Your task to perform on an android device: delete browsing data in the chrome app Image 0: 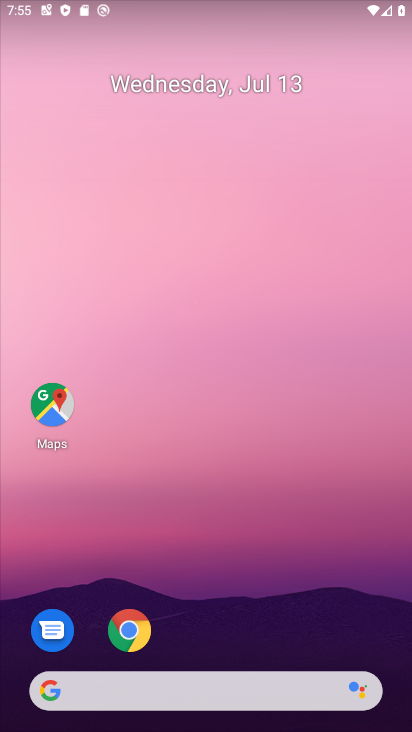
Step 0: drag from (349, 607) to (312, 77)
Your task to perform on an android device: delete browsing data in the chrome app Image 1: 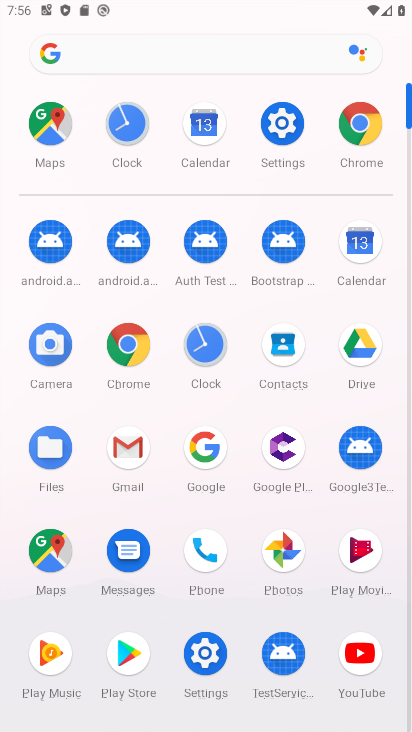
Step 1: click (132, 343)
Your task to perform on an android device: delete browsing data in the chrome app Image 2: 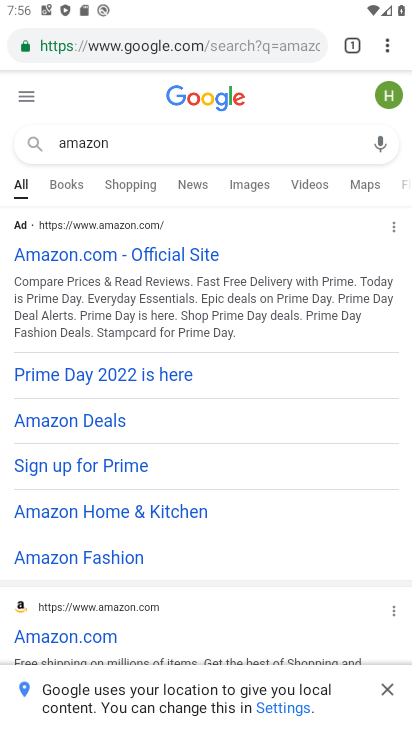
Step 2: click (387, 51)
Your task to perform on an android device: delete browsing data in the chrome app Image 3: 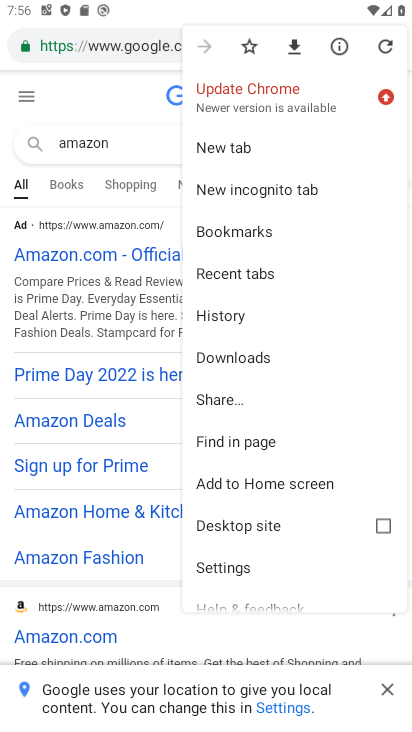
Step 3: drag from (333, 367) to (334, 270)
Your task to perform on an android device: delete browsing data in the chrome app Image 4: 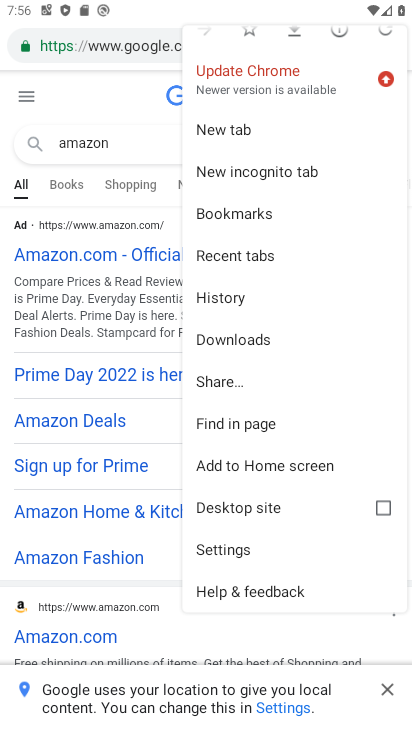
Step 4: click (278, 548)
Your task to perform on an android device: delete browsing data in the chrome app Image 5: 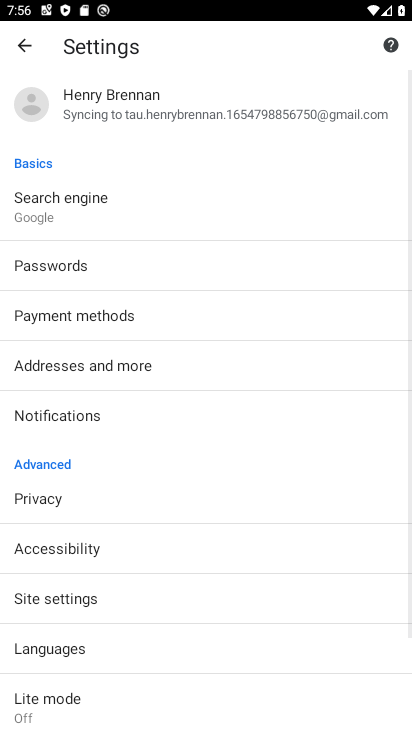
Step 5: drag from (315, 565) to (320, 474)
Your task to perform on an android device: delete browsing data in the chrome app Image 6: 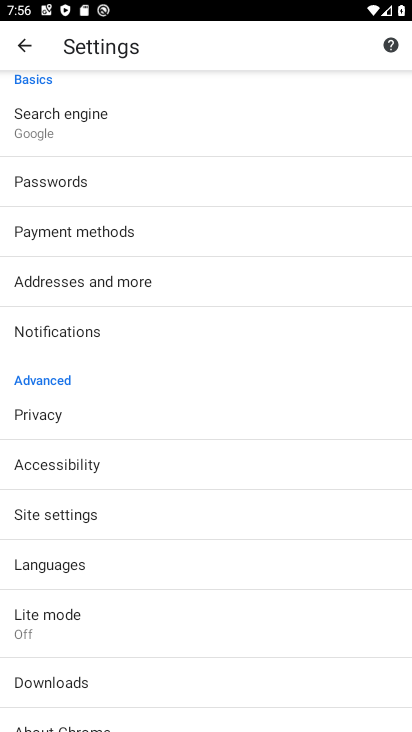
Step 6: drag from (320, 558) to (322, 430)
Your task to perform on an android device: delete browsing data in the chrome app Image 7: 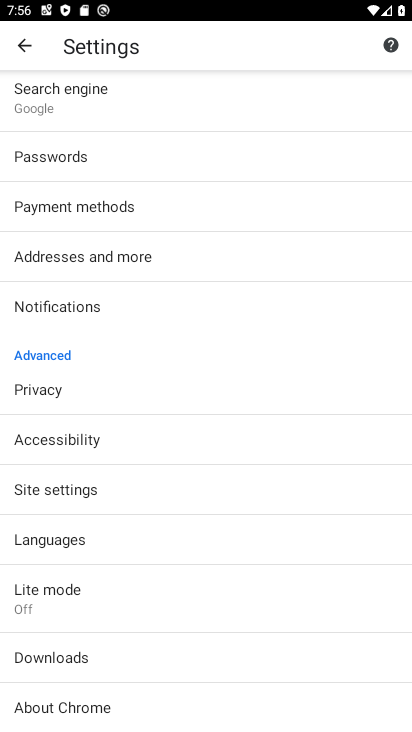
Step 7: click (243, 400)
Your task to perform on an android device: delete browsing data in the chrome app Image 8: 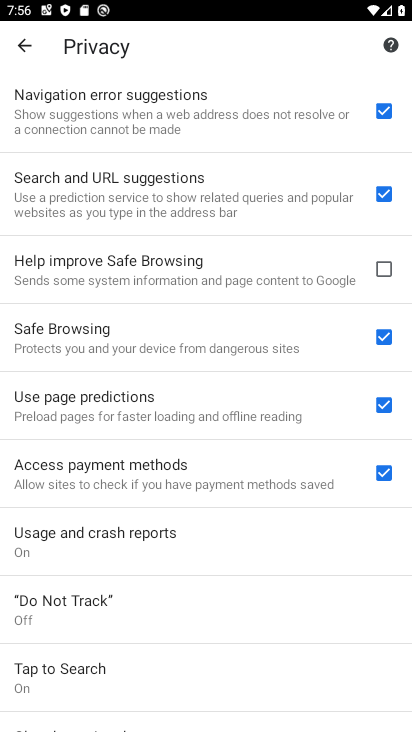
Step 8: drag from (301, 327) to (301, 427)
Your task to perform on an android device: delete browsing data in the chrome app Image 9: 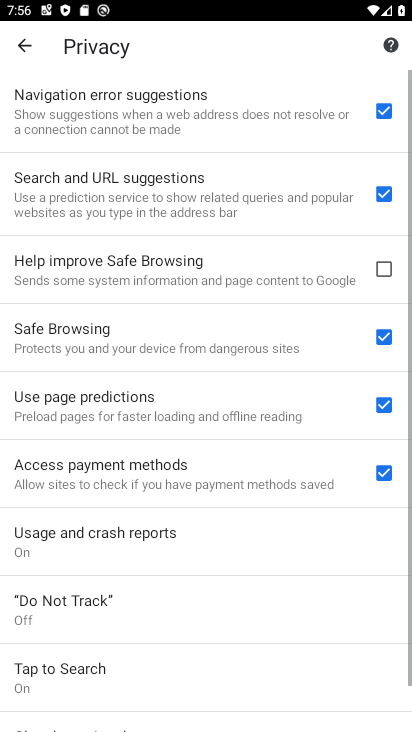
Step 9: drag from (303, 498) to (307, 419)
Your task to perform on an android device: delete browsing data in the chrome app Image 10: 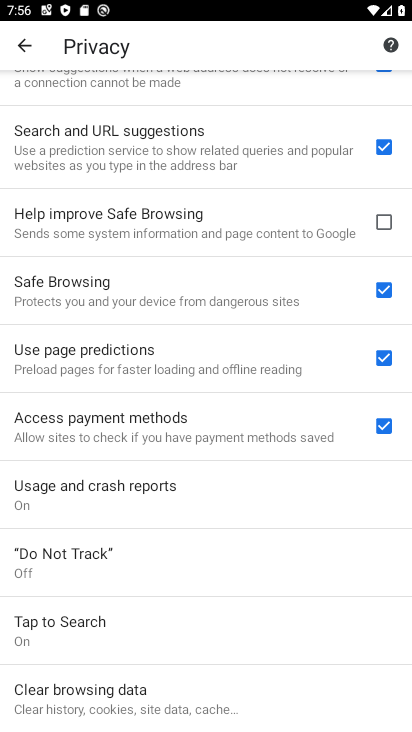
Step 10: click (256, 713)
Your task to perform on an android device: delete browsing data in the chrome app Image 11: 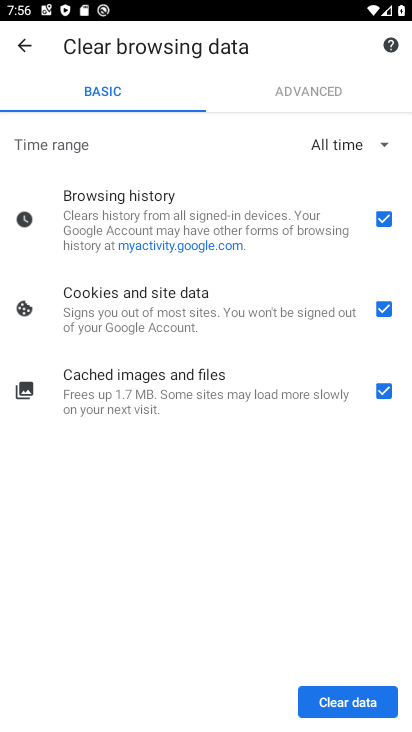
Step 11: click (347, 699)
Your task to perform on an android device: delete browsing data in the chrome app Image 12: 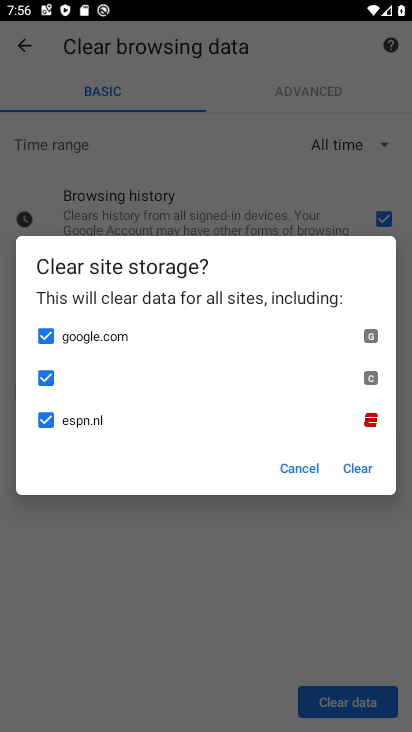
Step 12: click (358, 480)
Your task to perform on an android device: delete browsing data in the chrome app Image 13: 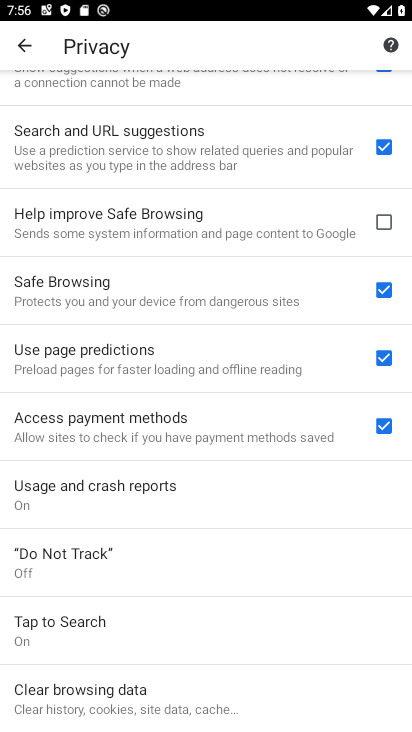
Step 13: task complete